Your task to perform on an android device: turn off location history Image 0: 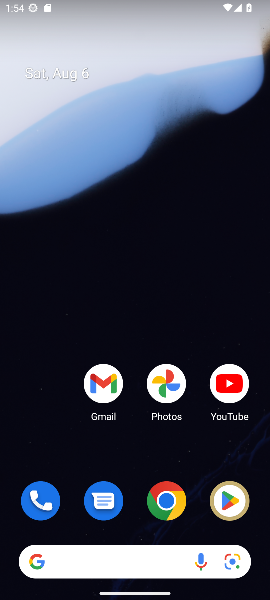
Step 0: press home button
Your task to perform on an android device: turn off location history Image 1: 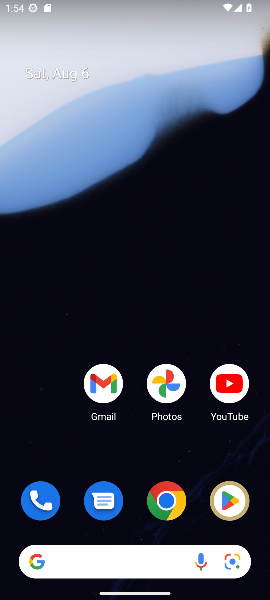
Step 1: drag from (134, 531) to (168, 195)
Your task to perform on an android device: turn off location history Image 2: 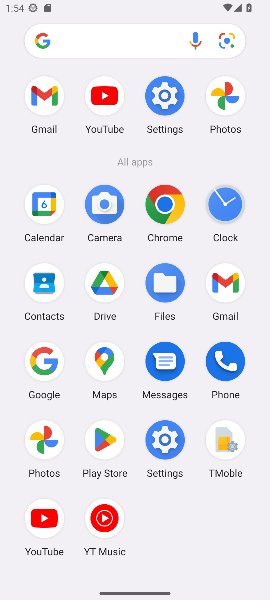
Step 2: click (158, 111)
Your task to perform on an android device: turn off location history Image 3: 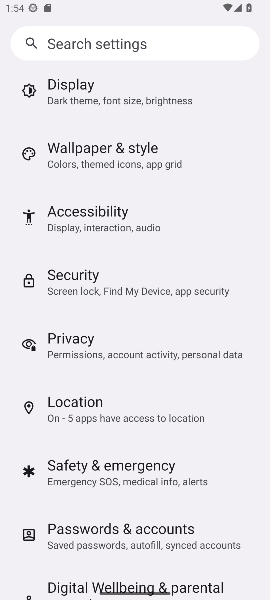
Step 3: click (70, 406)
Your task to perform on an android device: turn off location history Image 4: 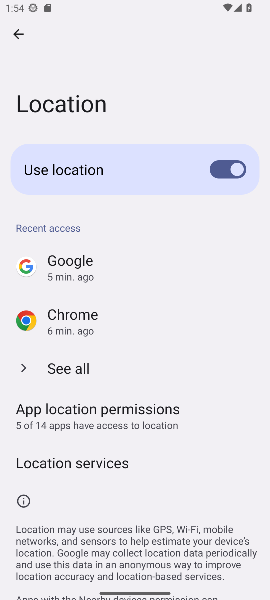
Step 4: click (89, 460)
Your task to perform on an android device: turn off location history Image 5: 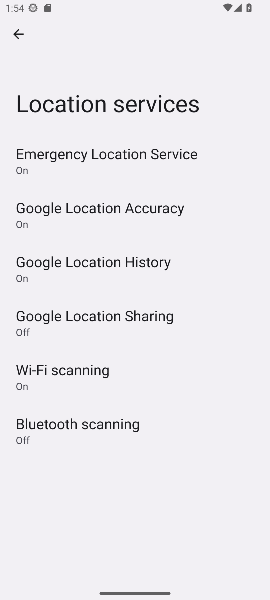
Step 5: click (129, 266)
Your task to perform on an android device: turn off location history Image 6: 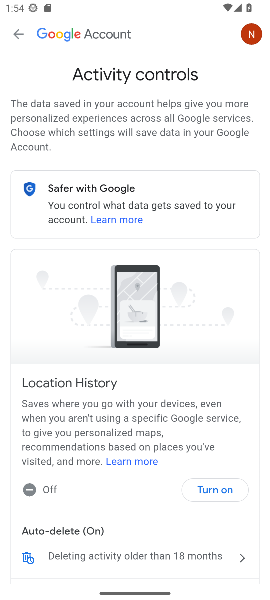
Step 6: click (210, 488)
Your task to perform on an android device: turn off location history Image 7: 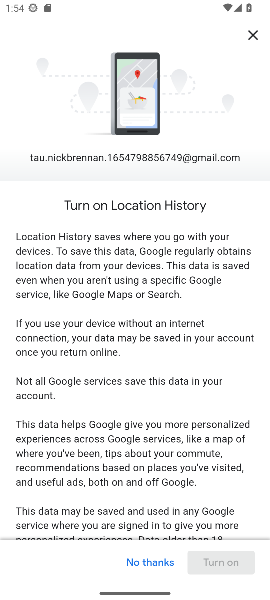
Step 7: click (149, 560)
Your task to perform on an android device: turn off location history Image 8: 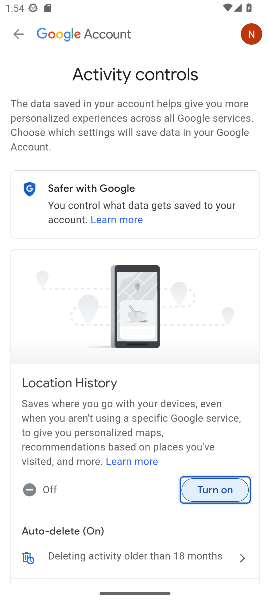
Step 8: task complete